Your task to perform on an android device: change timer sound Image 0: 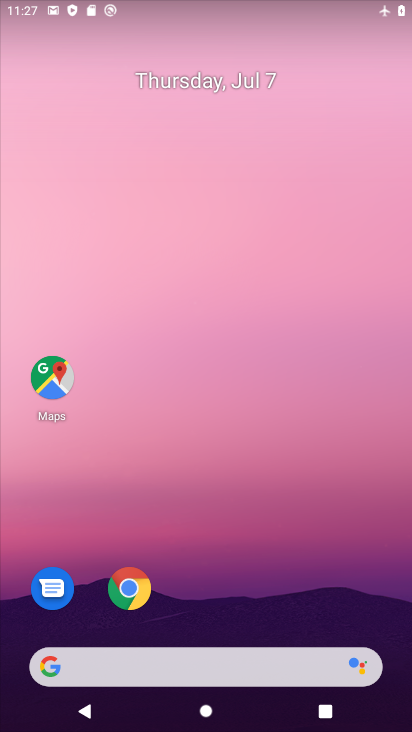
Step 0: drag from (235, 612) to (259, 226)
Your task to perform on an android device: change timer sound Image 1: 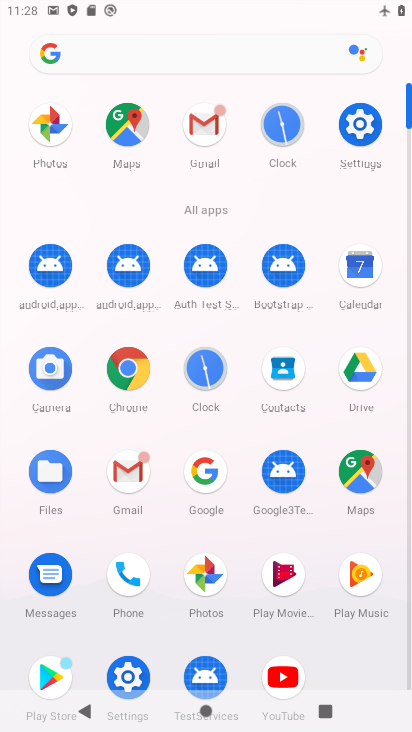
Step 1: click (294, 143)
Your task to perform on an android device: change timer sound Image 2: 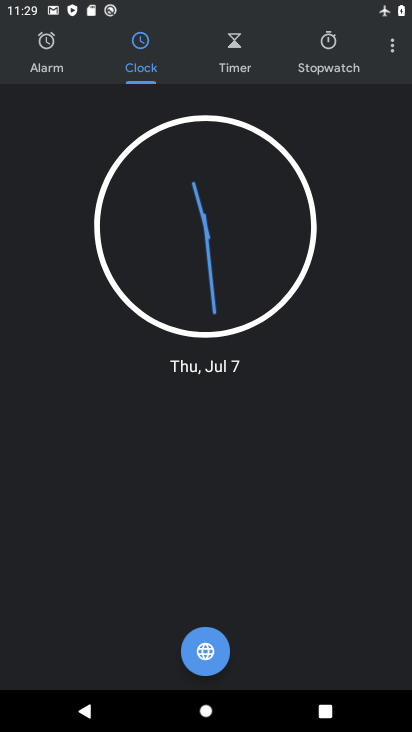
Step 2: click (397, 39)
Your task to perform on an android device: change timer sound Image 3: 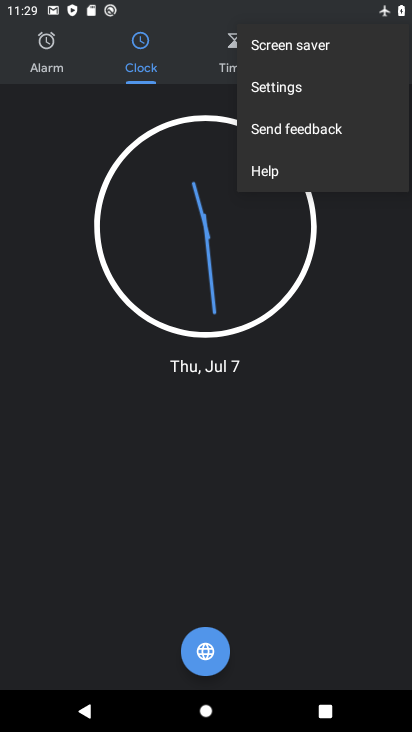
Step 3: click (305, 91)
Your task to perform on an android device: change timer sound Image 4: 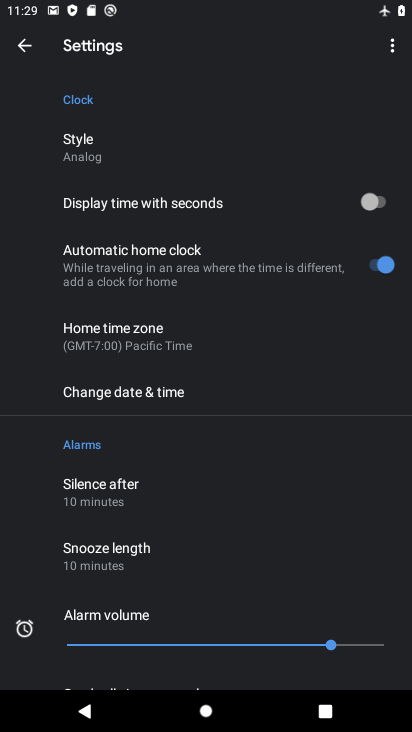
Step 4: drag from (223, 439) to (215, 57)
Your task to perform on an android device: change timer sound Image 5: 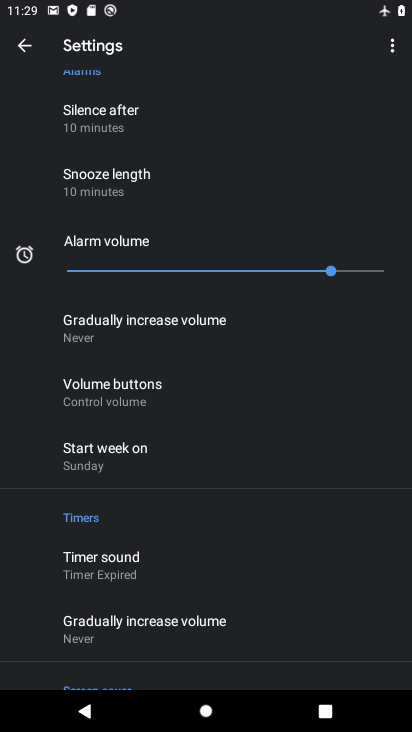
Step 5: click (160, 309)
Your task to perform on an android device: change timer sound Image 6: 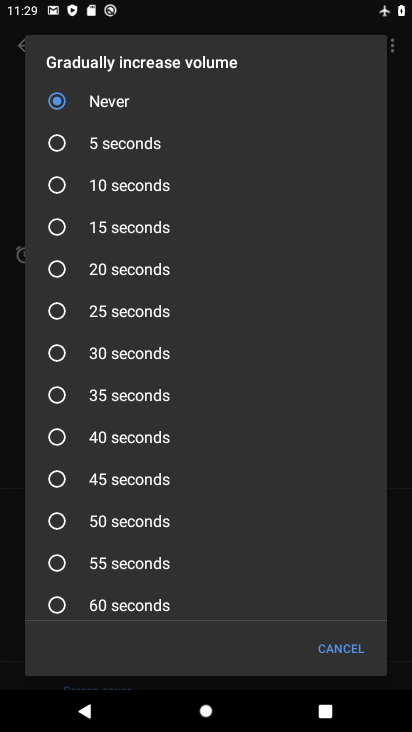
Step 6: click (345, 656)
Your task to perform on an android device: change timer sound Image 7: 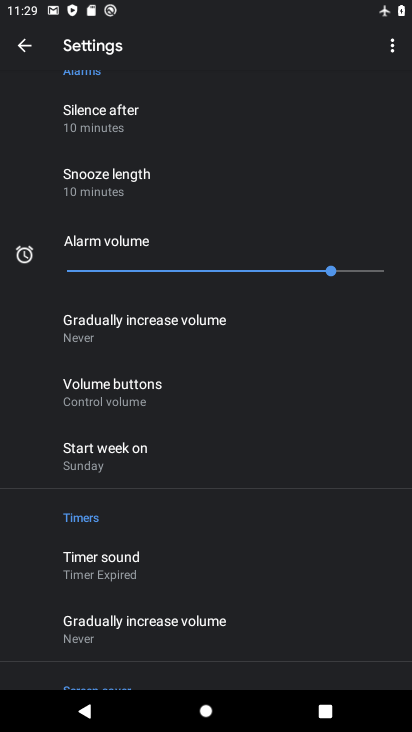
Step 7: click (129, 565)
Your task to perform on an android device: change timer sound Image 8: 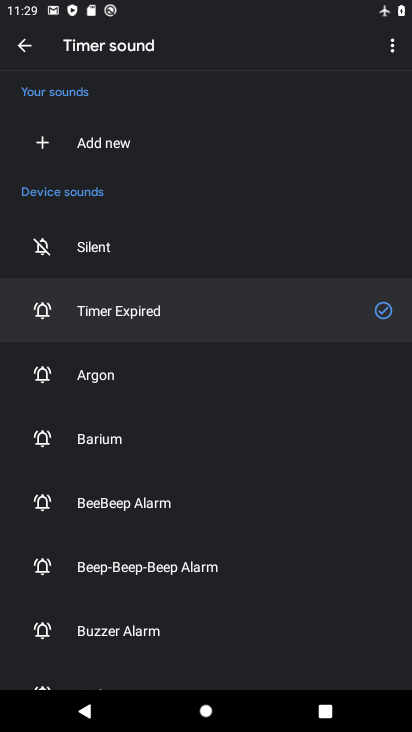
Step 8: click (100, 390)
Your task to perform on an android device: change timer sound Image 9: 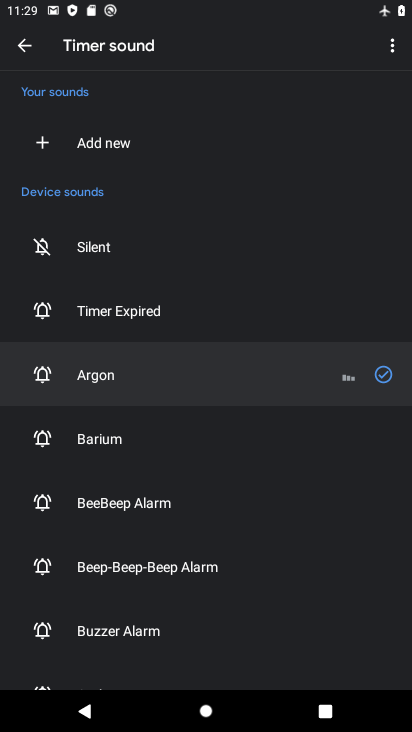
Step 9: task complete